Your task to perform on an android device: Toggle the flashlight Image 0: 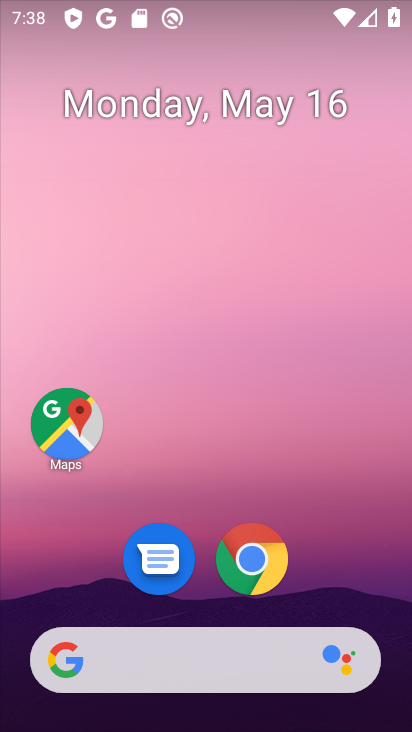
Step 0: drag from (341, 572) to (343, 181)
Your task to perform on an android device: Toggle the flashlight Image 1: 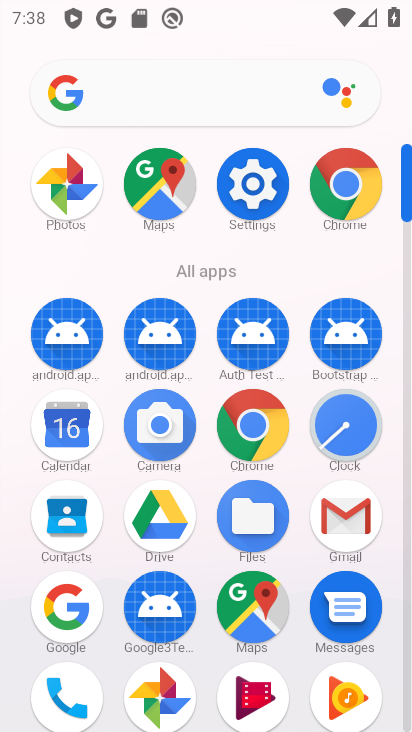
Step 1: click (259, 202)
Your task to perform on an android device: Toggle the flashlight Image 2: 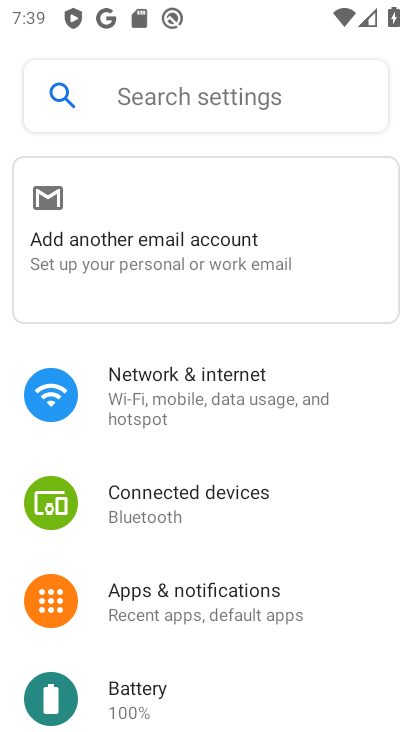
Step 2: click (242, 108)
Your task to perform on an android device: Toggle the flashlight Image 3: 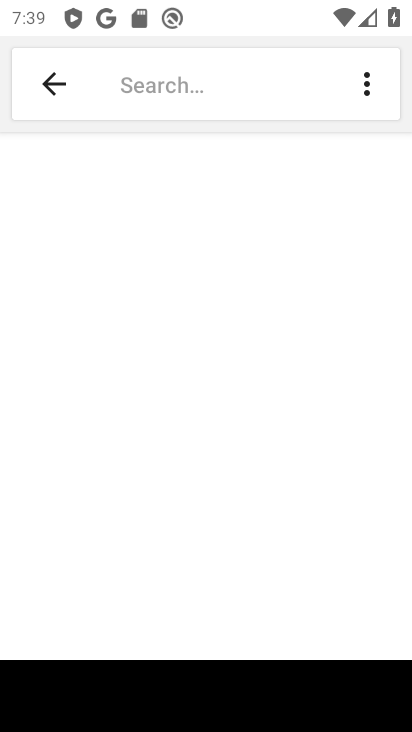
Step 3: type "flashlight"
Your task to perform on an android device: Toggle the flashlight Image 4: 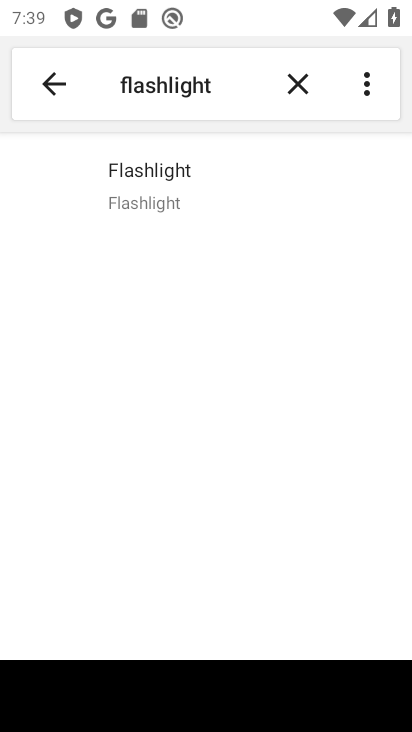
Step 4: click (168, 191)
Your task to perform on an android device: Toggle the flashlight Image 5: 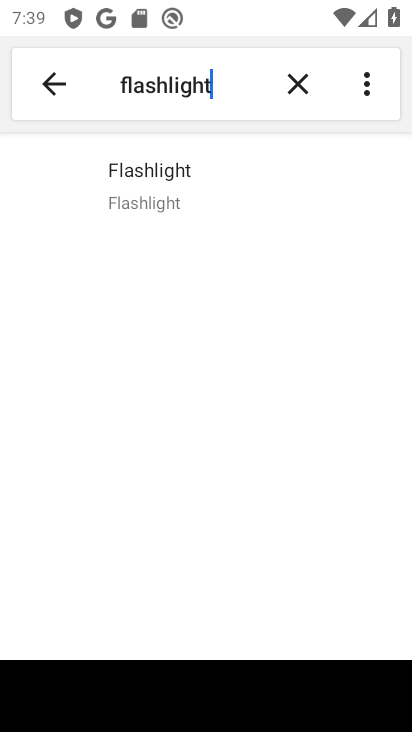
Step 5: task complete